Your task to perform on an android device: delete a single message in the gmail app Image 0: 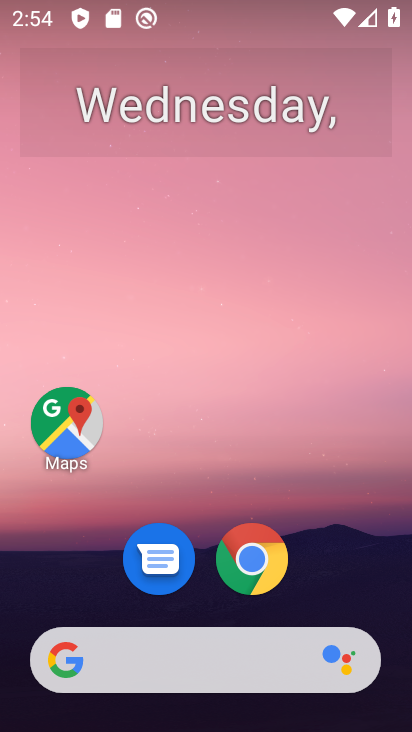
Step 0: drag from (204, 566) to (242, 42)
Your task to perform on an android device: delete a single message in the gmail app Image 1: 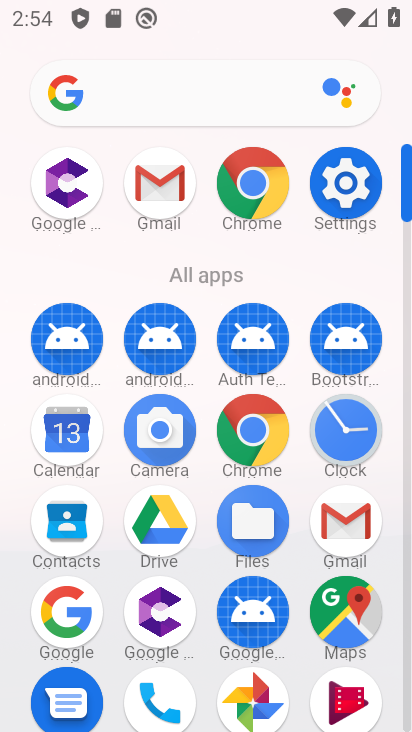
Step 1: click (149, 191)
Your task to perform on an android device: delete a single message in the gmail app Image 2: 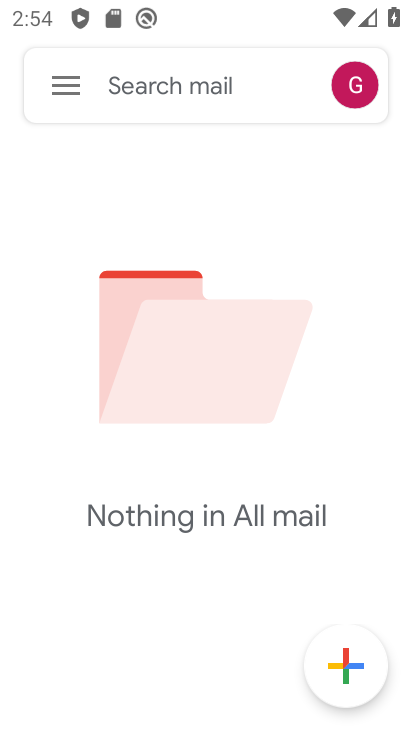
Step 2: task complete